Your task to perform on an android device: turn off picture-in-picture Image 0: 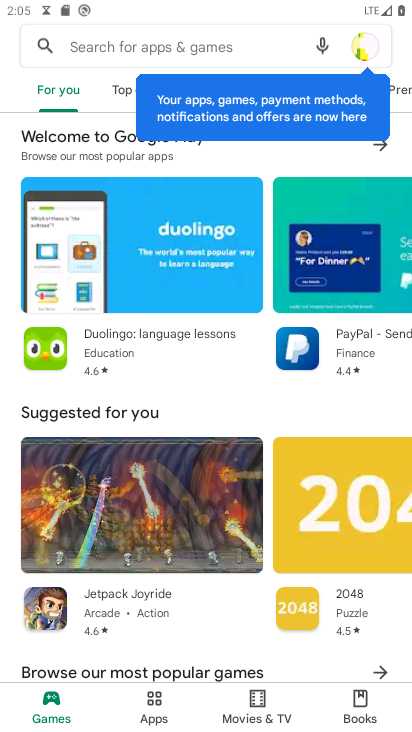
Step 0: press home button
Your task to perform on an android device: turn off picture-in-picture Image 1: 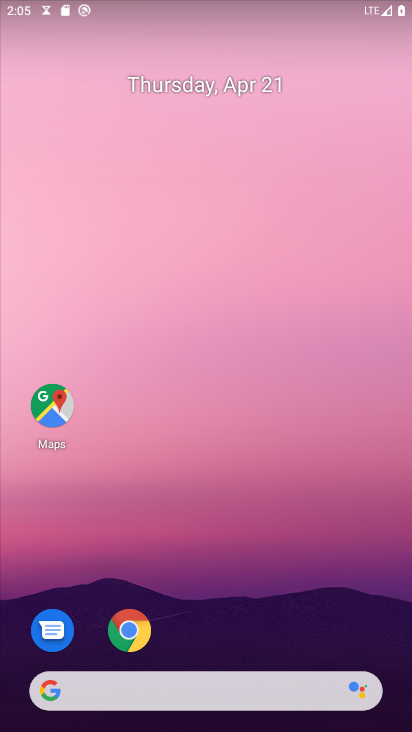
Step 1: click (129, 630)
Your task to perform on an android device: turn off picture-in-picture Image 2: 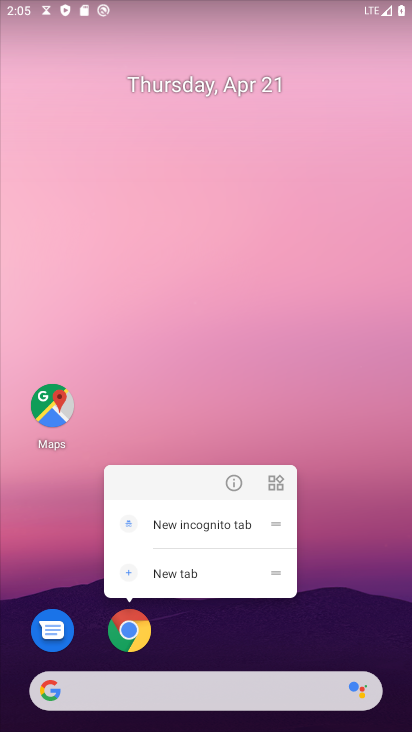
Step 2: click (228, 481)
Your task to perform on an android device: turn off picture-in-picture Image 3: 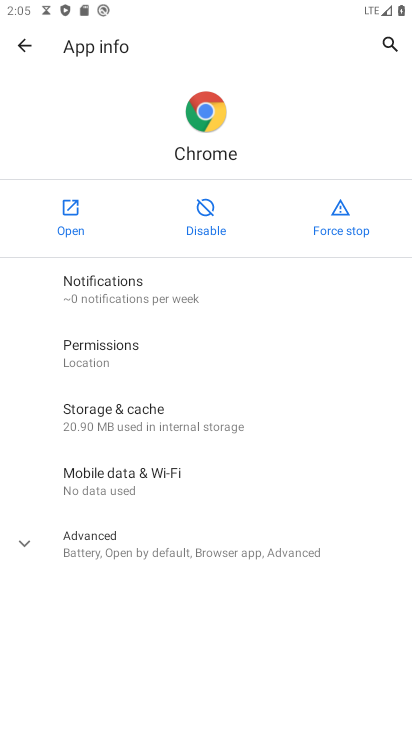
Step 3: click (24, 545)
Your task to perform on an android device: turn off picture-in-picture Image 4: 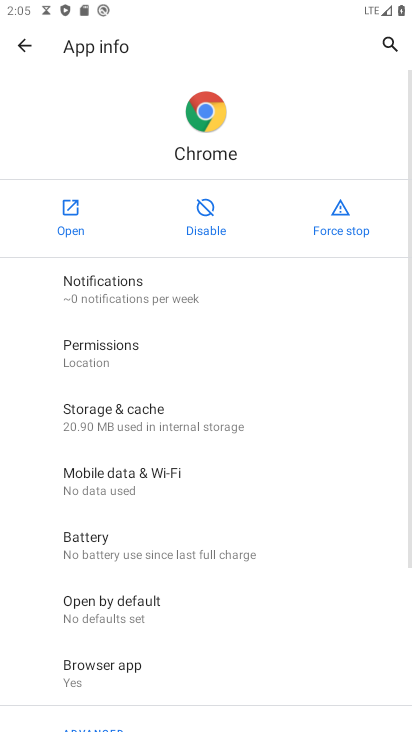
Step 4: drag from (216, 577) to (213, 171)
Your task to perform on an android device: turn off picture-in-picture Image 5: 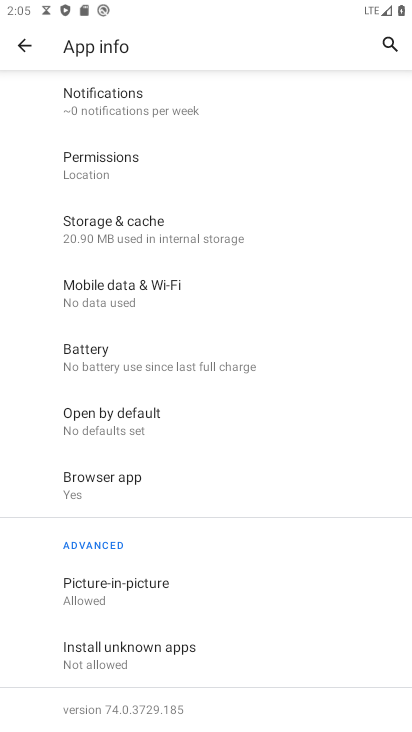
Step 5: click (117, 588)
Your task to perform on an android device: turn off picture-in-picture Image 6: 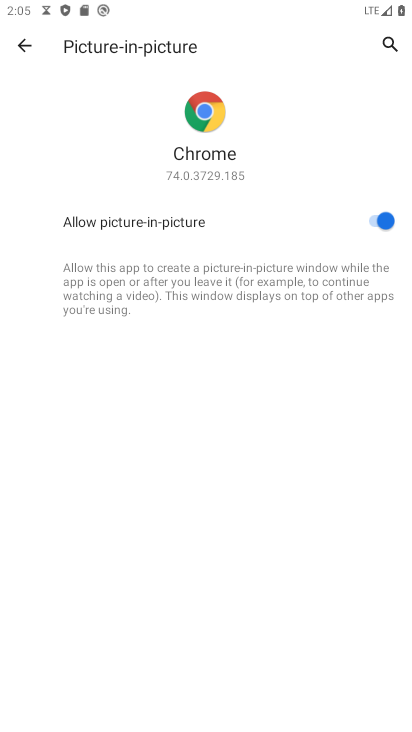
Step 6: click (381, 221)
Your task to perform on an android device: turn off picture-in-picture Image 7: 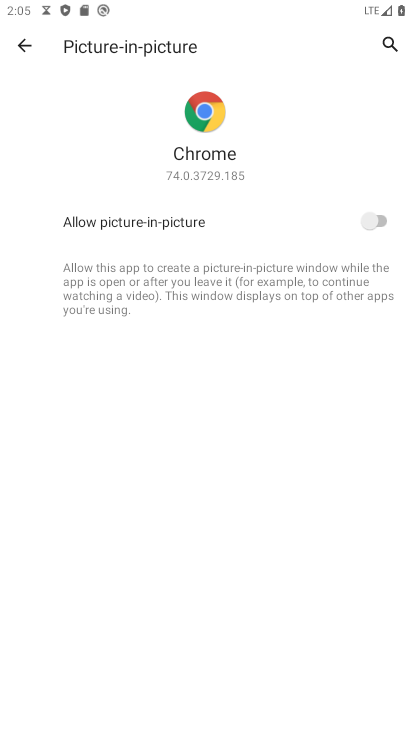
Step 7: task complete